Your task to perform on an android device: add a label to a message in the gmail app Image 0: 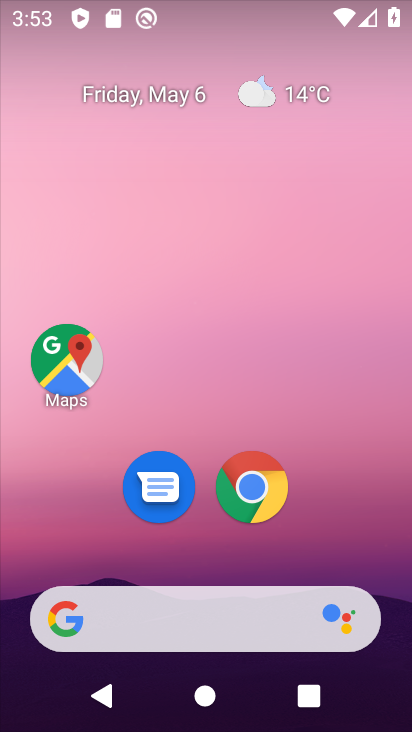
Step 0: drag from (151, 593) to (272, 60)
Your task to perform on an android device: add a label to a message in the gmail app Image 1: 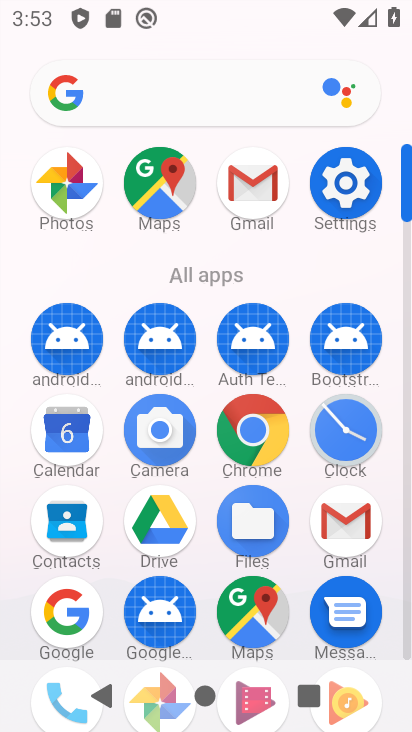
Step 1: click (338, 516)
Your task to perform on an android device: add a label to a message in the gmail app Image 2: 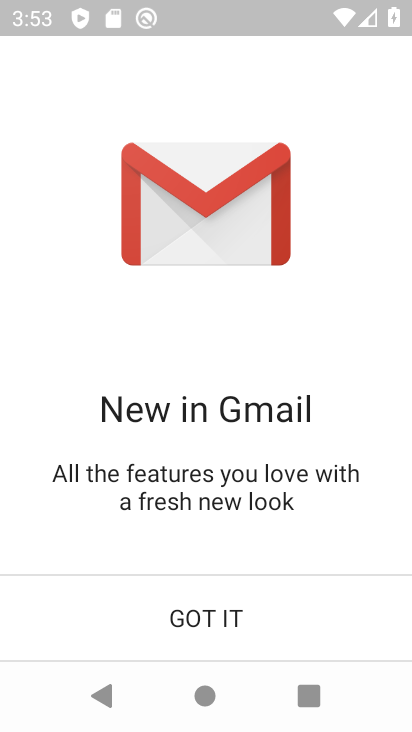
Step 2: click (187, 623)
Your task to perform on an android device: add a label to a message in the gmail app Image 3: 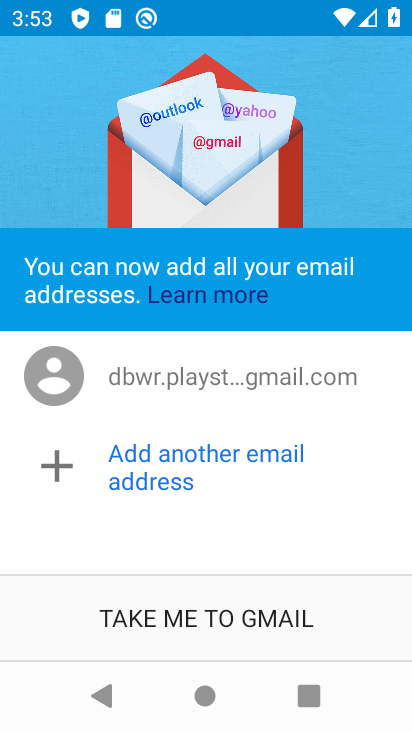
Step 3: click (184, 626)
Your task to perform on an android device: add a label to a message in the gmail app Image 4: 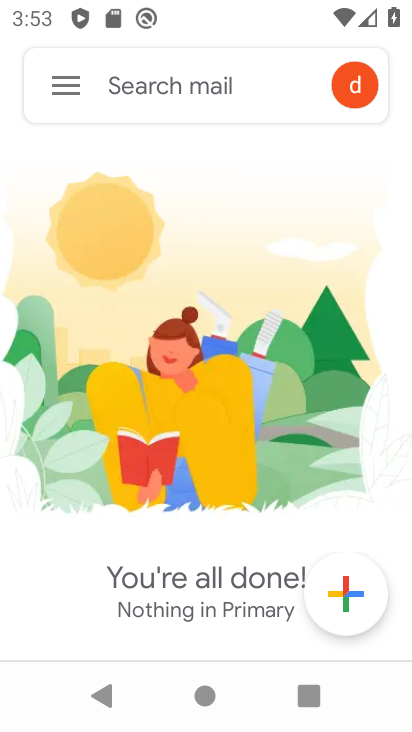
Step 4: click (56, 81)
Your task to perform on an android device: add a label to a message in the gmail app Image 5: 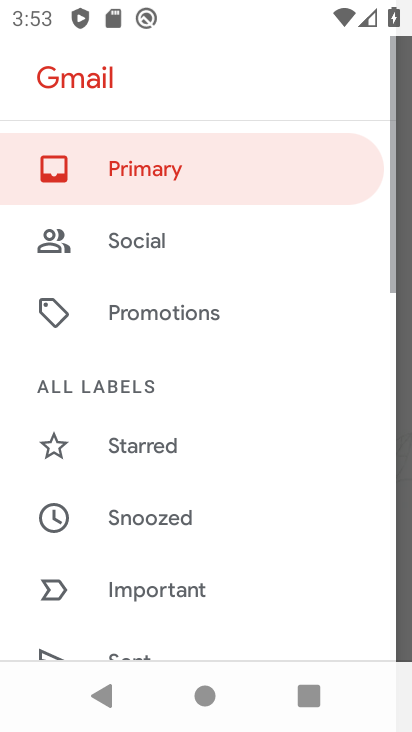
Step 5: drag from (144, 619) to (244, 169)
Your task to perform on an android device: add a label to a message in the gmail app Image 6: 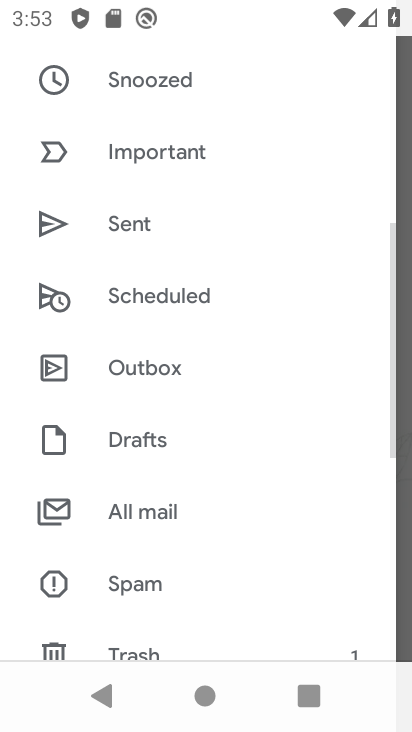
Step 6: click (202, 500)
Your task to perform on an android device: add a label to a message in the gmail app Image 7: 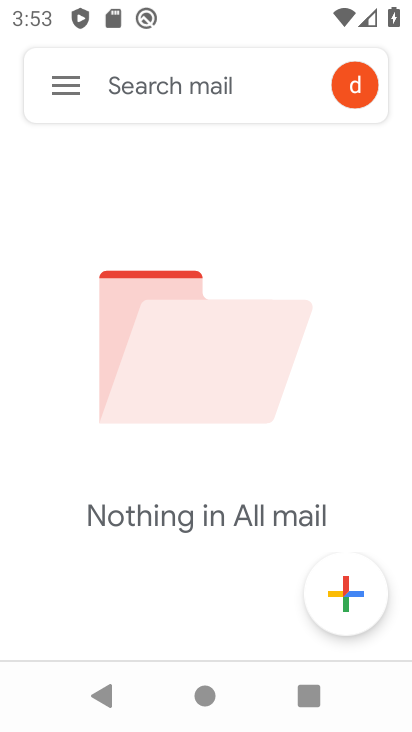
Step 7: task complete